Your task to perform on an android device: open app "VLC for Android" Image 0: 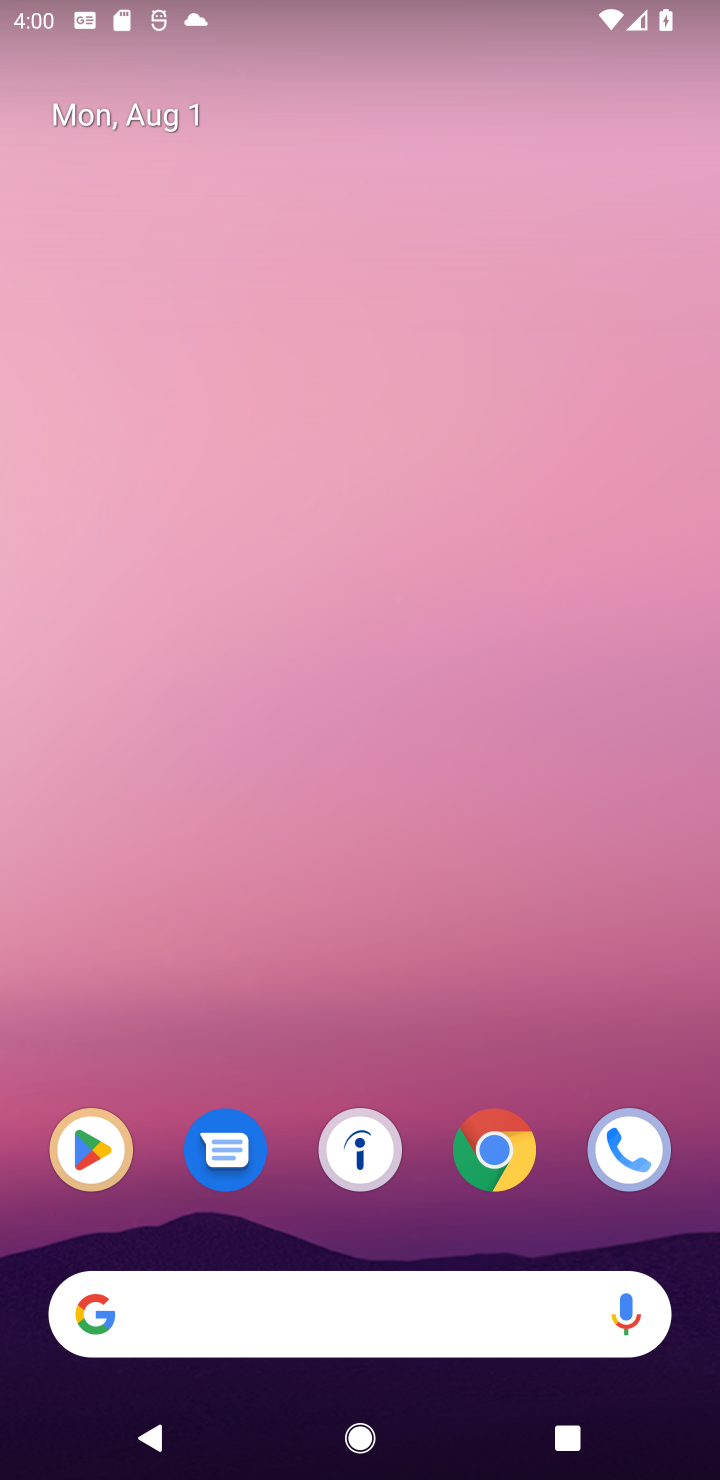
Step 0: click (107, 1156)
Your task to perform on an android device: open app "VLC for Android" Image 1: 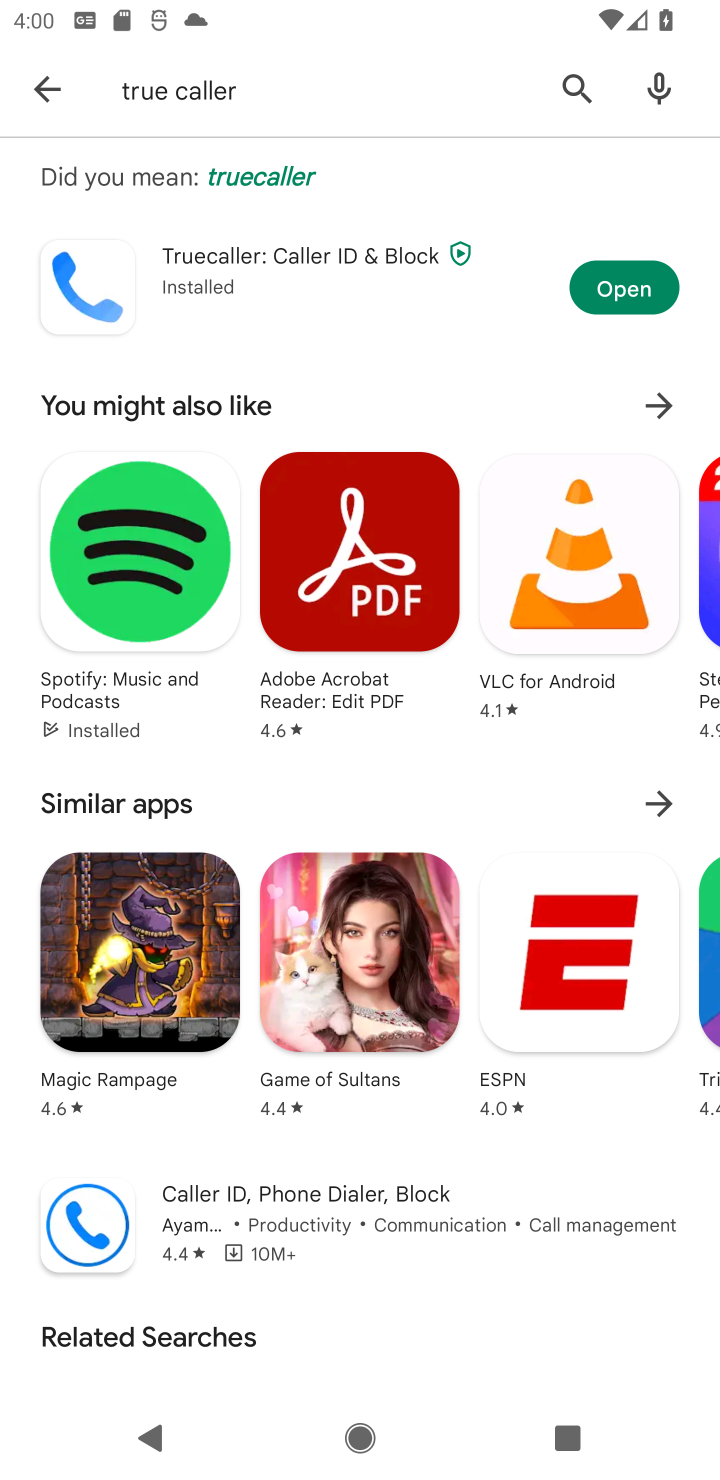
Step 1: click (594, 100)
Your task to perform on an android device: open app "VLC for Android" Image 2: 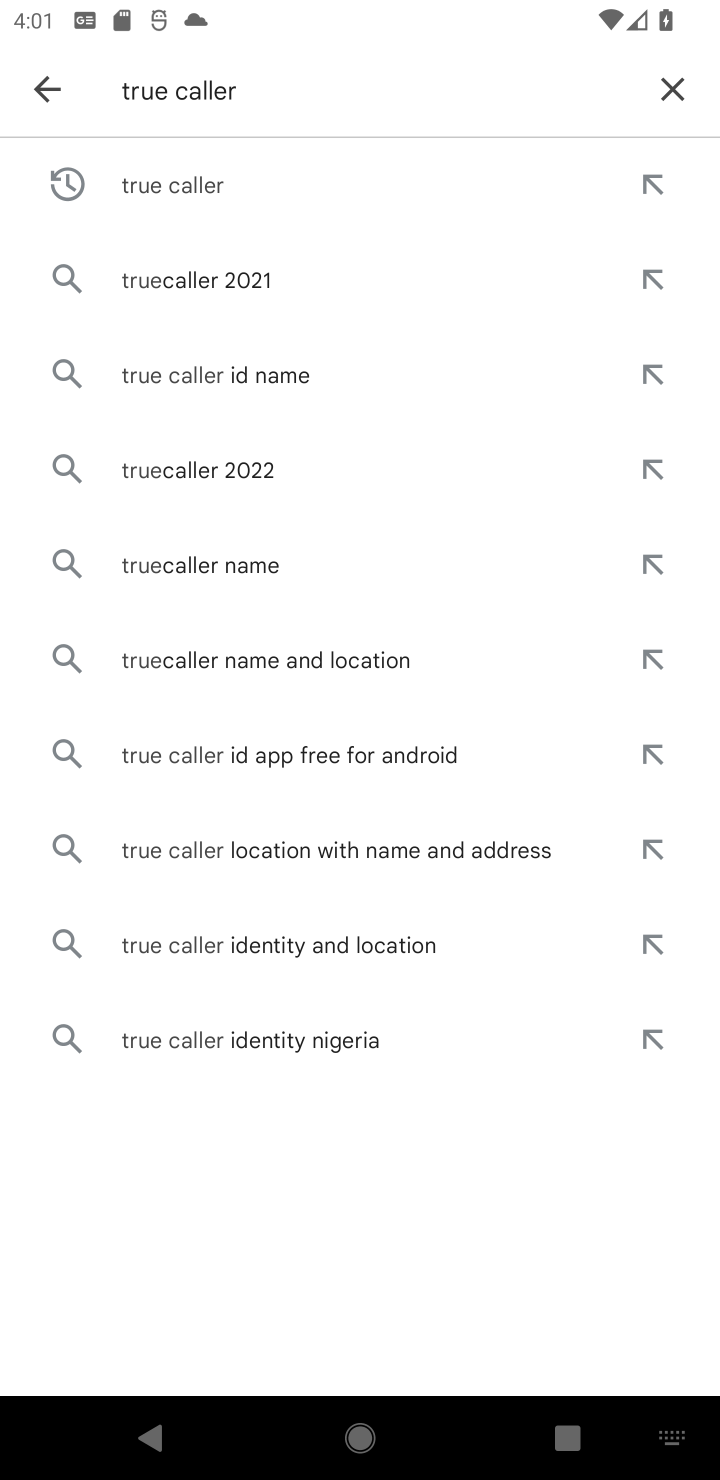
Step 2: click (707, 97)
Your task to perform on an android device: open app "VLC for Android" Image 3: 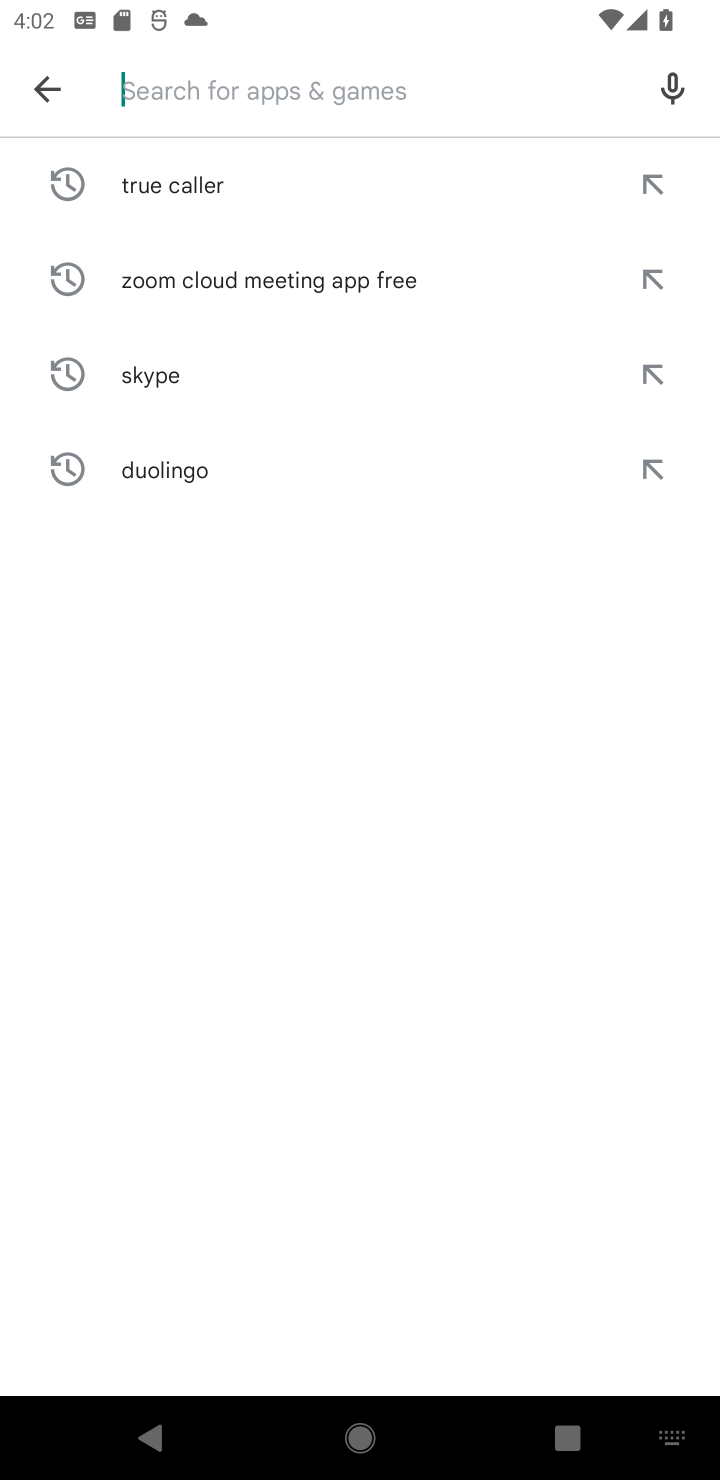
Step 3: type "vlc"
Your task to perform on an android device: open app "VLC for Android" Image 4: 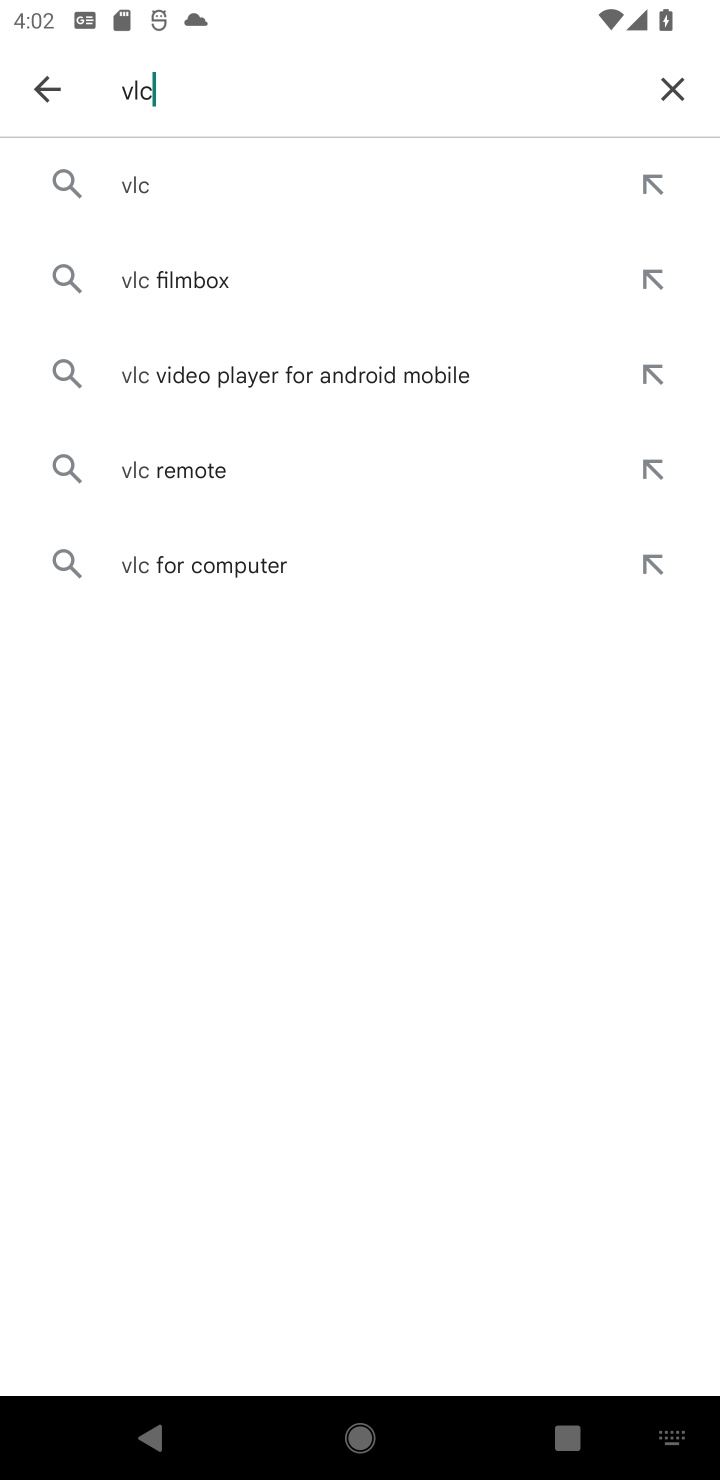
Step 4: click (216, 174)
Your task to perform on an android device: open app "VLC for Android" Image 5: 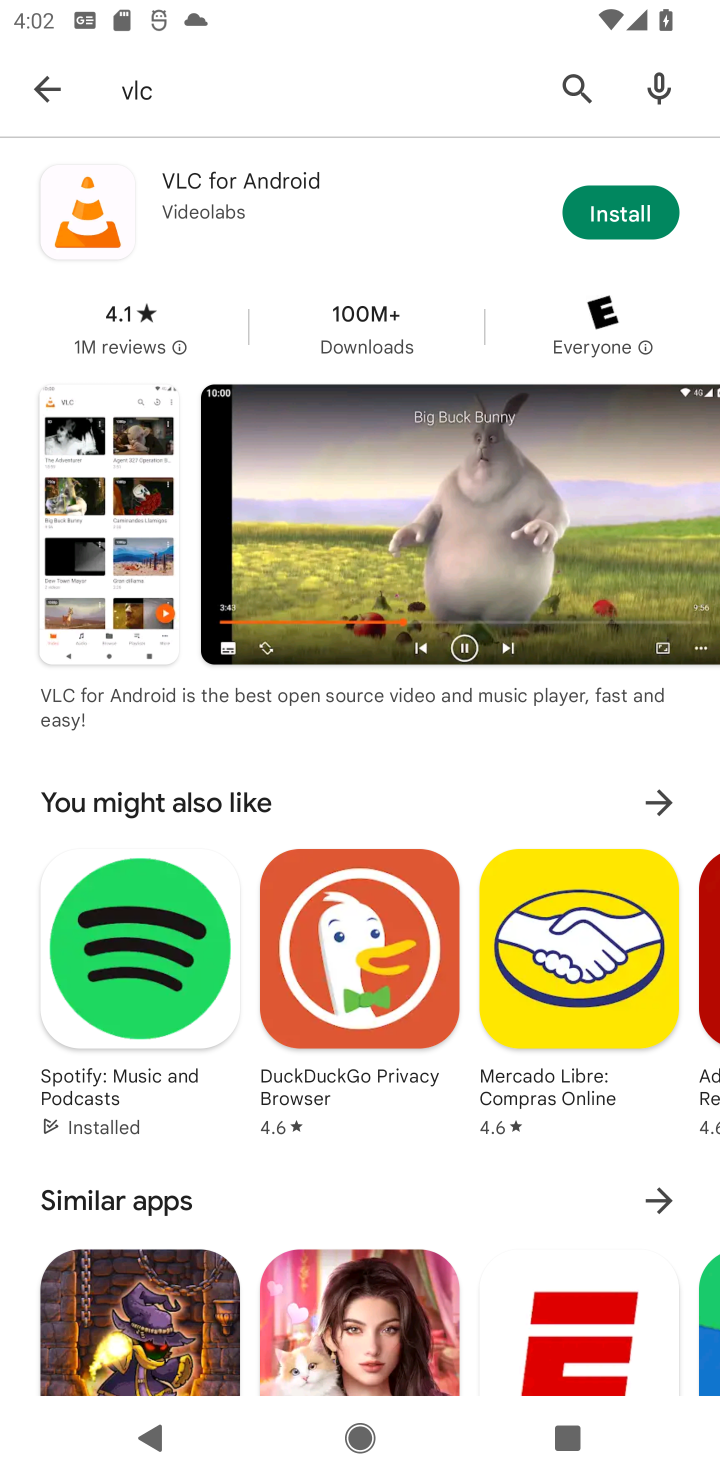
Step 5: click (637, 198)
Your task to perform on an android device: open app "VLC for Android" Image 6: 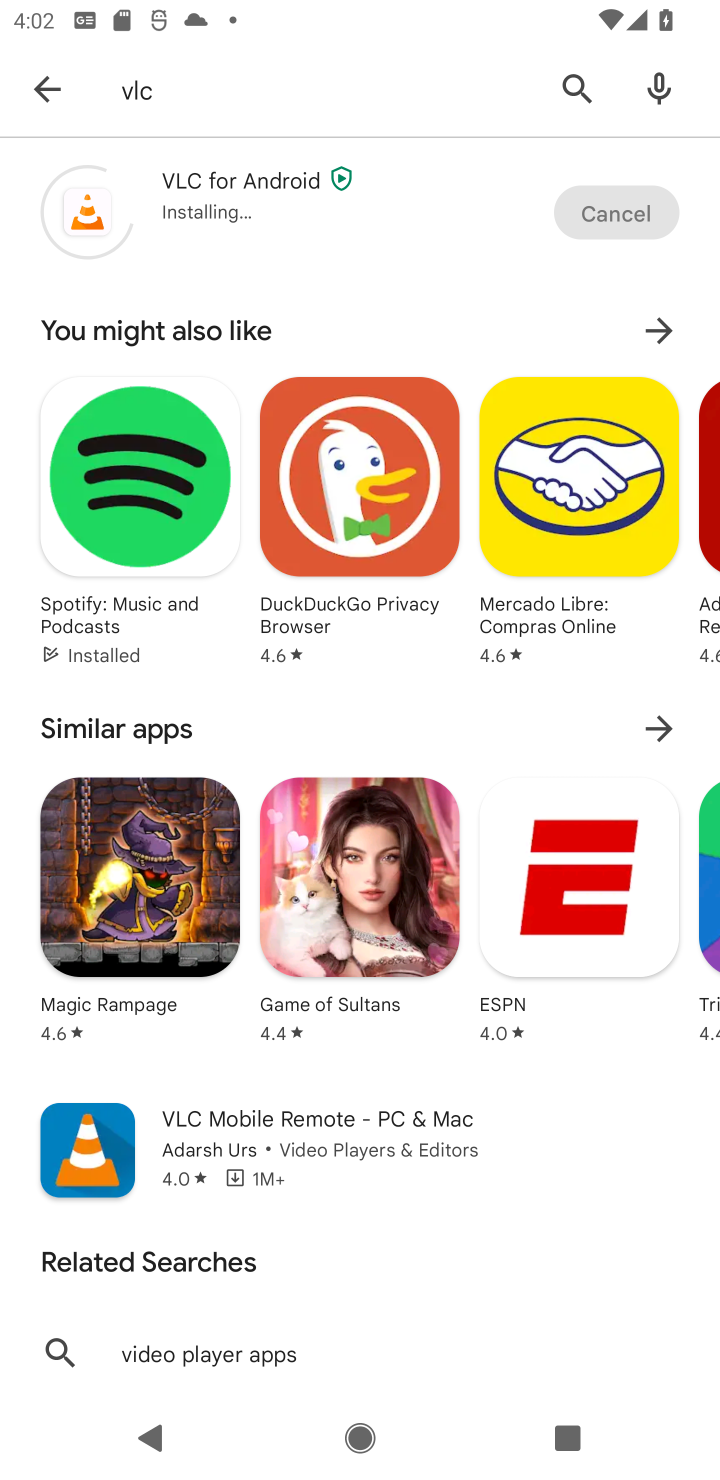
Step 6: task complete